Your task to perform on an android device: Check the news Image 0: 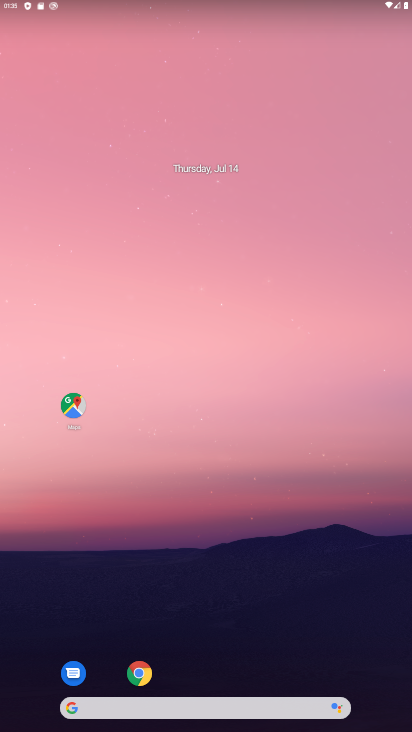
Step 0: click (145, 688)
Your task to perform on an android device: Check the news Image 1: 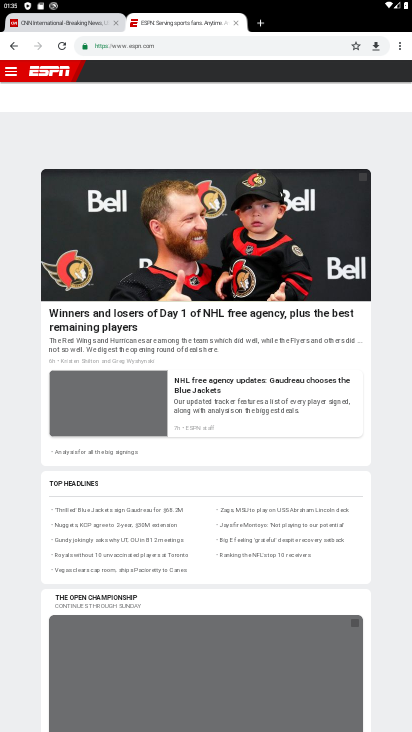
Step 1: click (249, 49)
Your task to perform on an android device: Check the news Image 2: 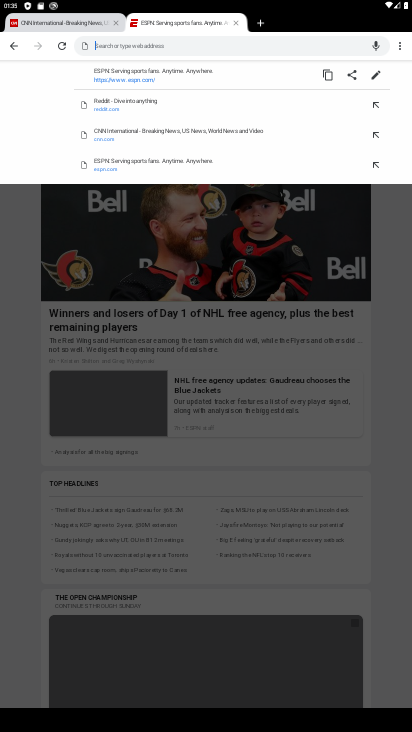
Step 2: press home button
Your task to perform on an android device: Check the news Image 3: 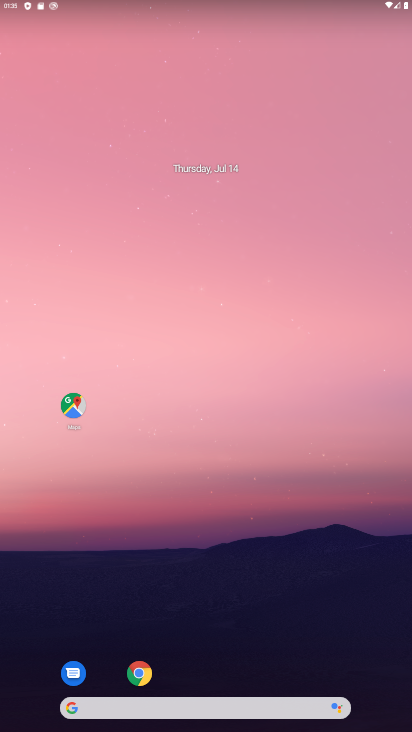
Step 3: click (206, 710)
Your task to perform on an android device: Check the news Image 4: 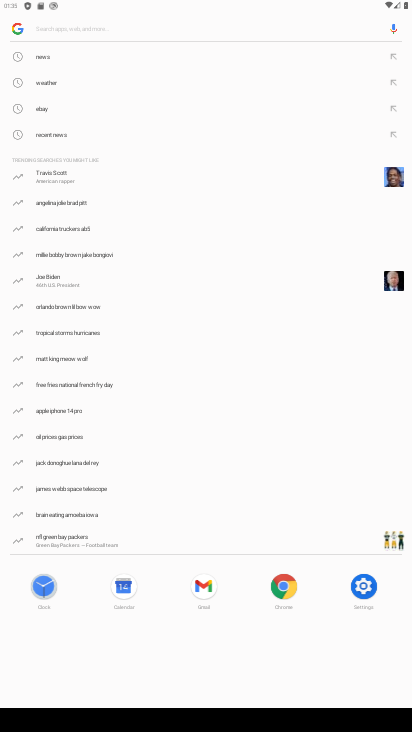
Step 4: type "news"
Your task to perform on an android device: Check the news Image 5: 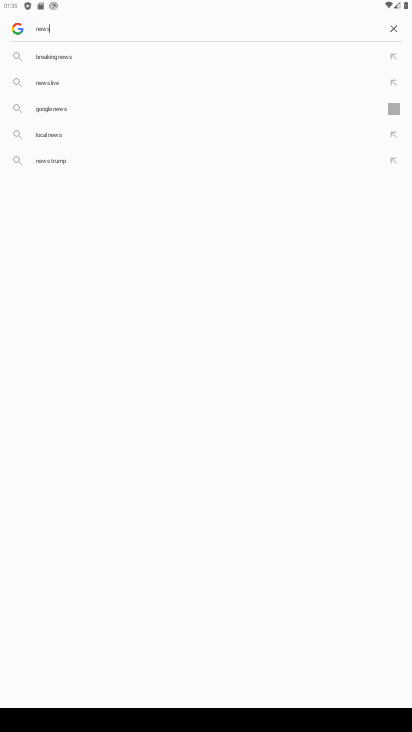
Step 5: click (120, 63)
Your task to perform on an android device: Check the news Image 6: 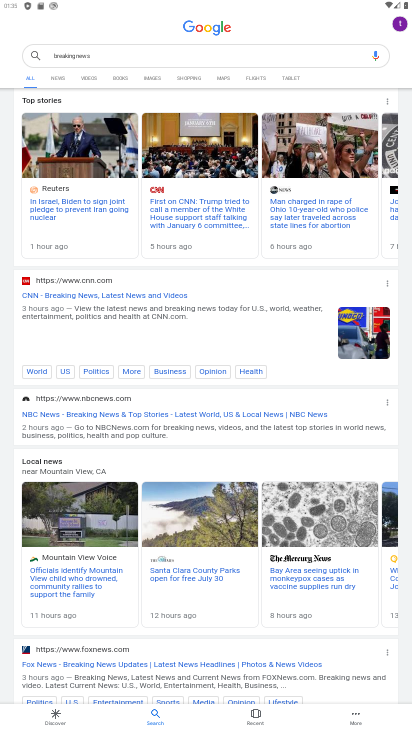
Step 6: task complete